Your task to perform on an android device: When is my next meeting? Image 0: 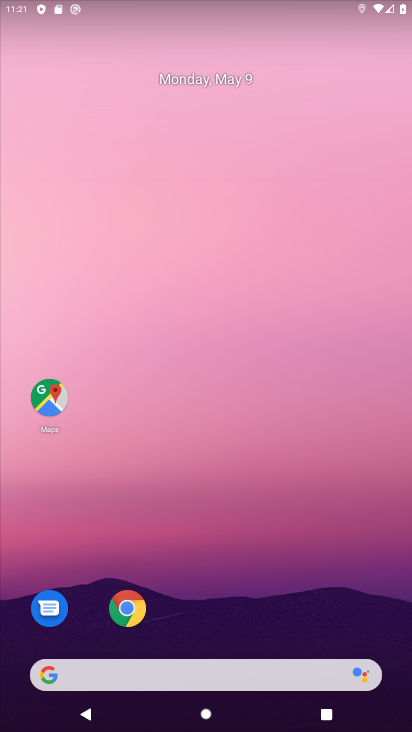
Step 0: press home button
Your task to perform on an android device: When is my next meeting? Image 1: 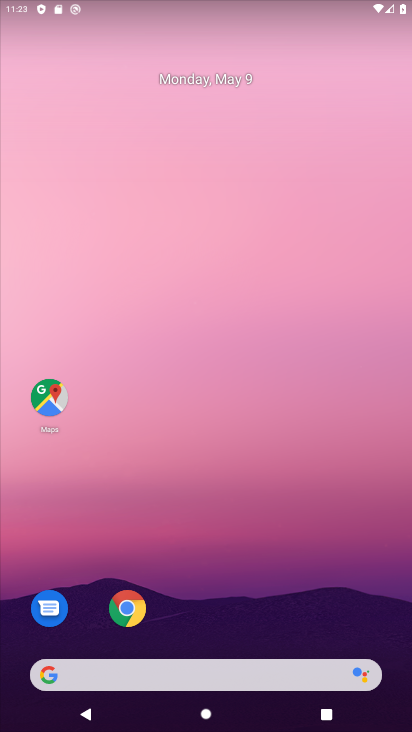
Step 1: drag from (58, 657) to (360, 216)
Your task to perform on an android device: When is my next meeting? Image 2: 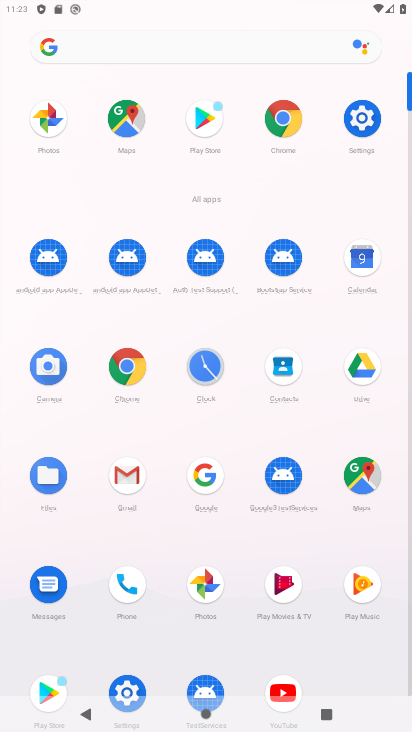
Step 2: click (365, 262)
Your task to perform on an android device: When is my next meeting? Image 3: 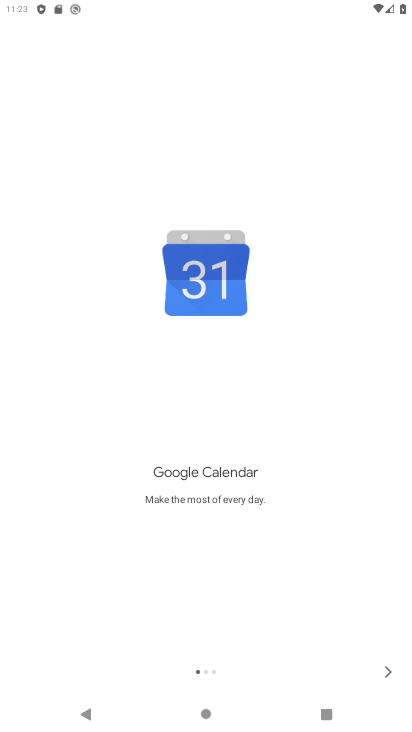
Step 3: click (388, 669)
Your task to perform on an android device: When is my next meeting? Image 4: 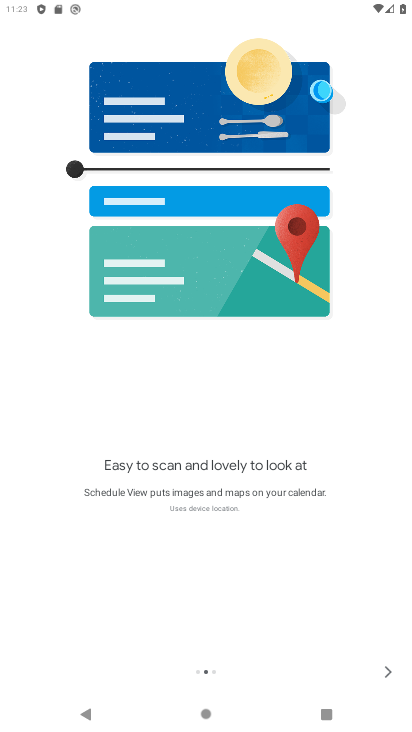
Step 4: click (388, 666)
Your task to perform on an android device: When is my next meeting? Image 5: 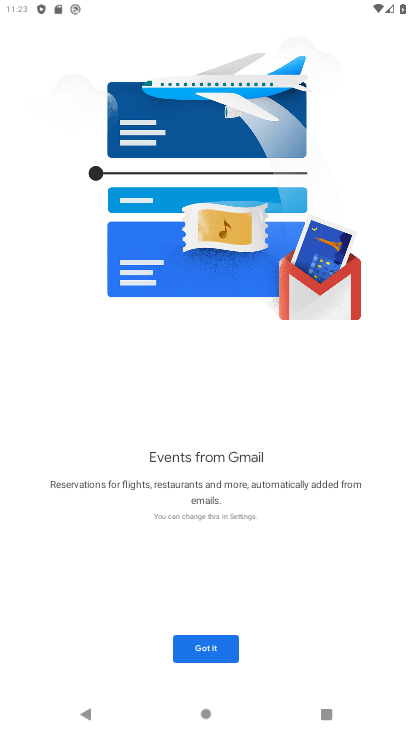
Step 5: click (191, 656)
Your task to perform on an android device: When is my next meeting? Image 6: 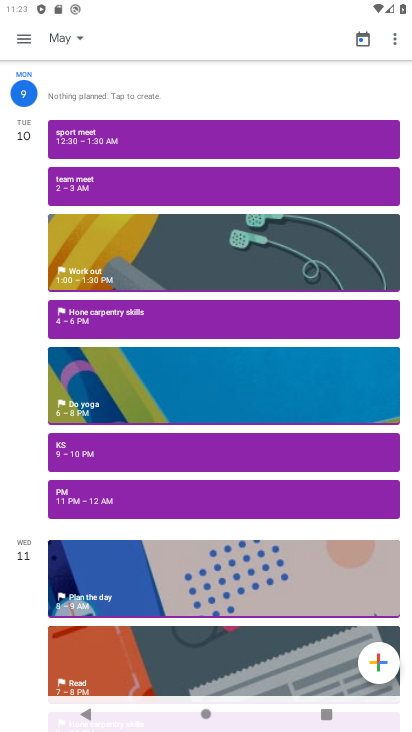
Step 6: click (62, 92)
Your task to perform on an android device: When is my next meeting? Image 7: 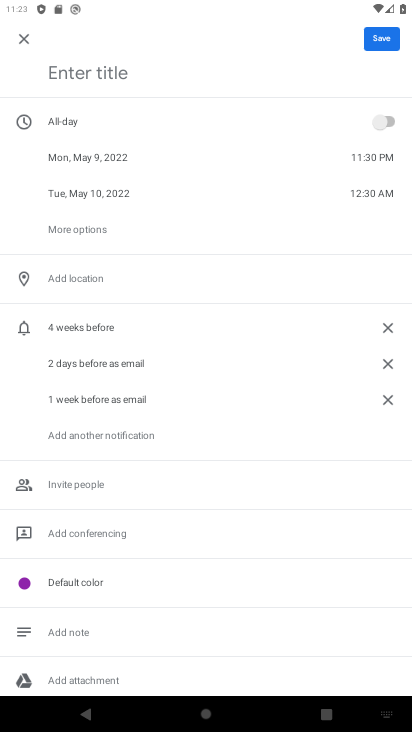
Step 7: click (13, 38)
Your task to perform on an android device: When is my next meeting? Image 8: 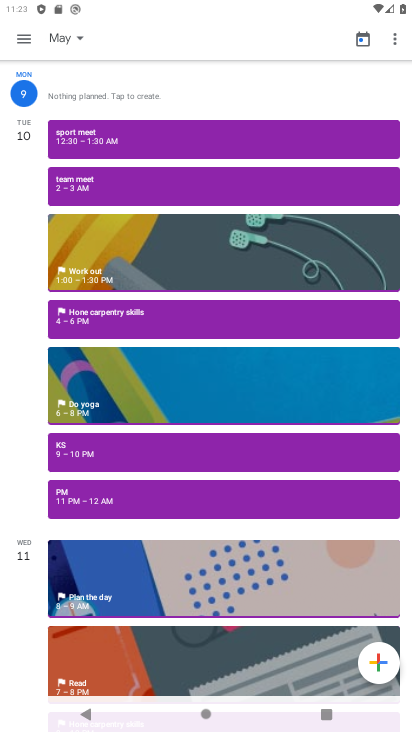
Step 8: click (15, 40)
Your task to perform on an android device: When is my next meeting? Image 9: 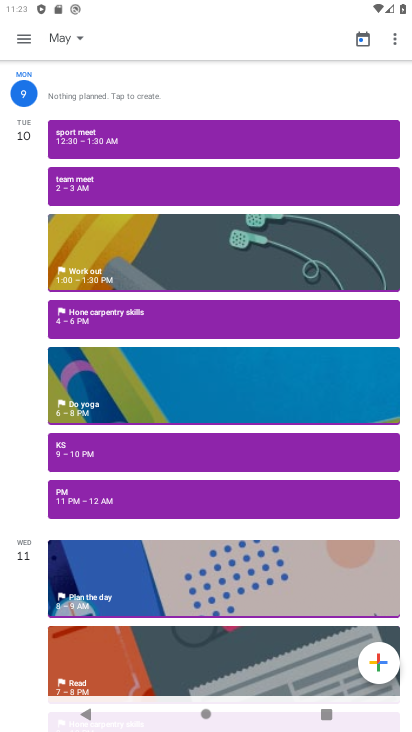
Step 9: click (27, 38)
Your task to perform on an android device: When is my next meeting? Image 10: 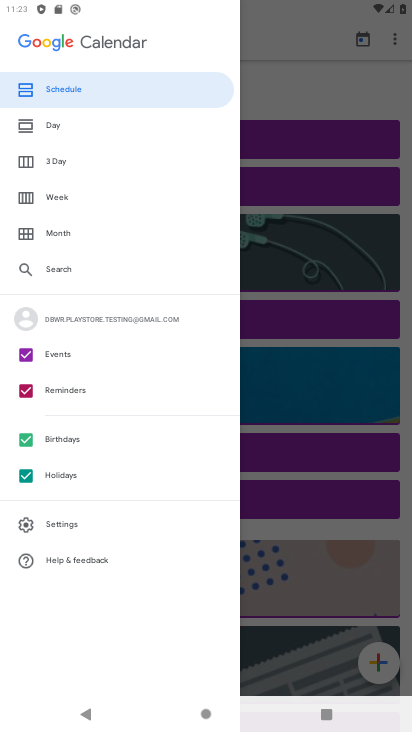
Step 10: click (130, 82)
Your task to perform on an android device: When is my next meeting? Image 11: 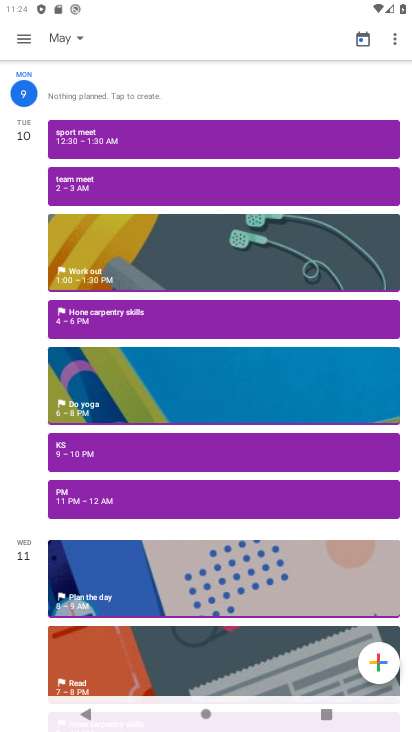
Step 11: task complete